Your task to perform on an android device: toggle improve location accuracy Image 0: 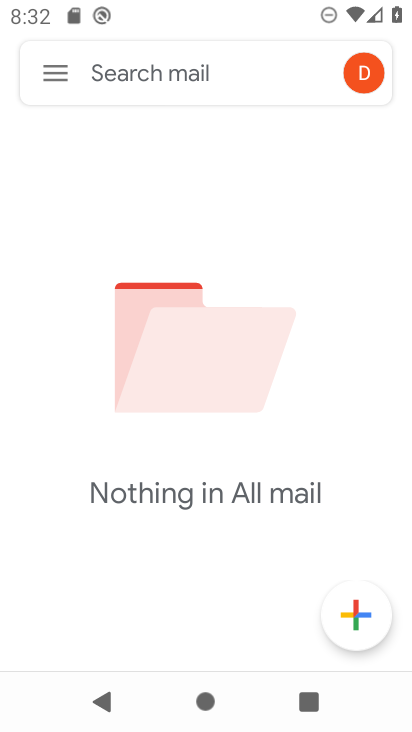
Step 0: press home button
Your task to perform on an android device: toggle improve location accuracy Image 1: 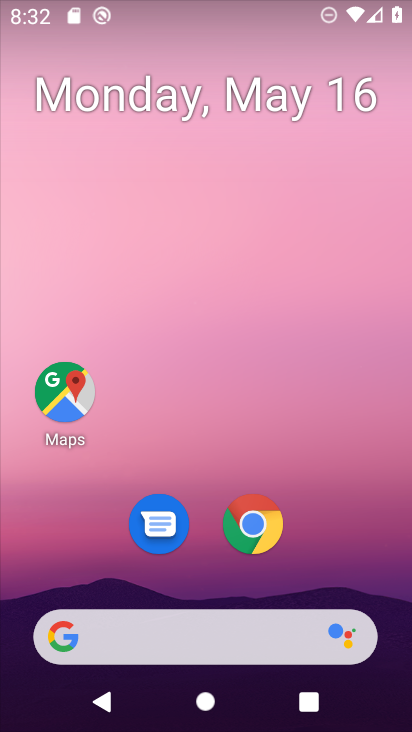
Step 1: drag from (301, 525) to (292, 58)
Your task to perform on an android device: toggle improve location accuracy Image 2: 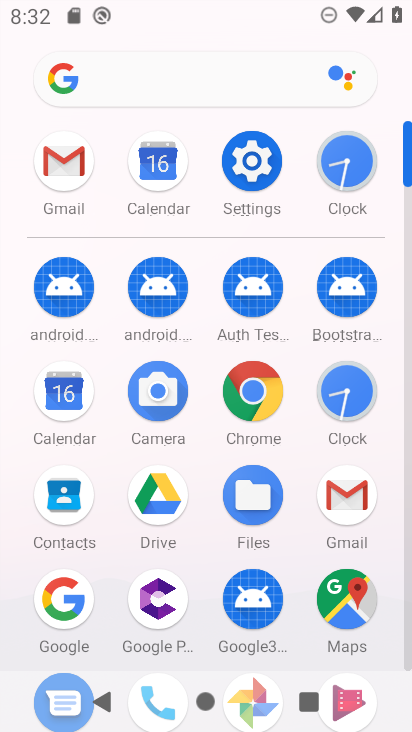
Step 2: click (255, 172)
Your task to perform on an android device: toggle improve location accuracy Image 3: 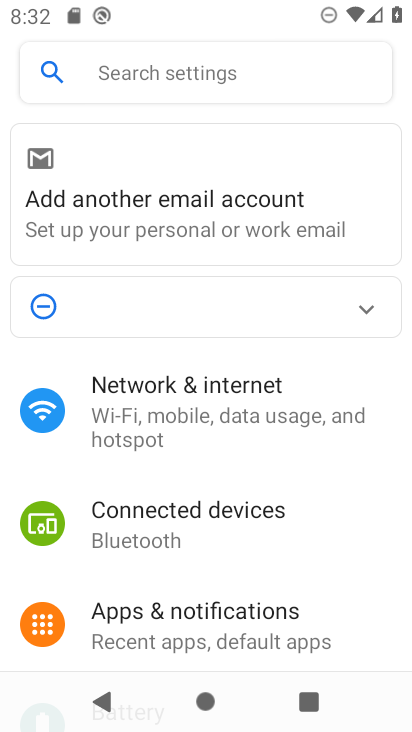
Step 3: drag from (217, 599) to (270, 192)
Your task to perform on an android device: toggle improve location accuracy Image 4: 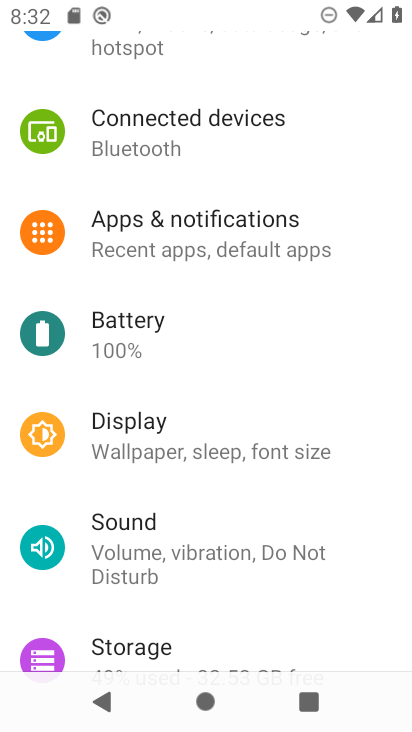
Step 4: drag from (211, 597) to (293, 102)
Your task to perform on an android device: toggle improve location accuracy Image 5: 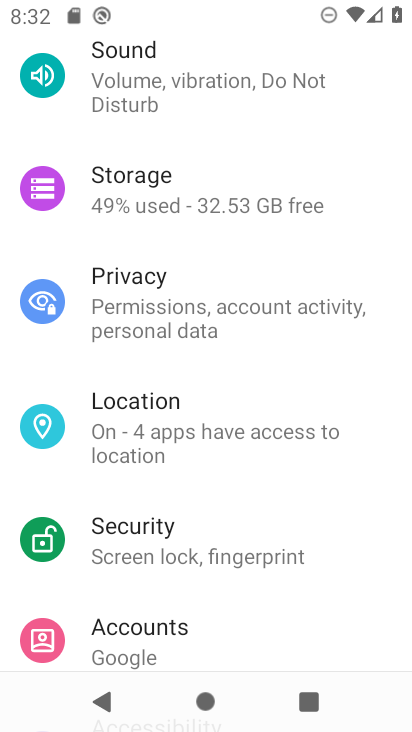
Step 5: click (193, 421)
Your task to perform on an android device: toggle improve location accuracy Image 6: 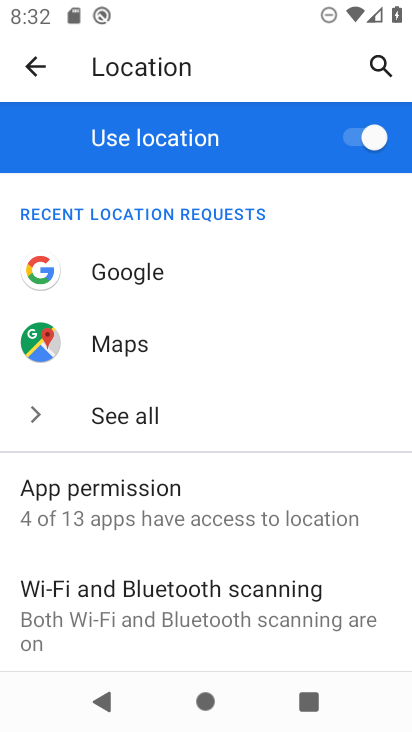
Step 6: drag from (257, 592) to (315, 182)
Your task to perform on an android device: toggle improve location accuracy Image 7: 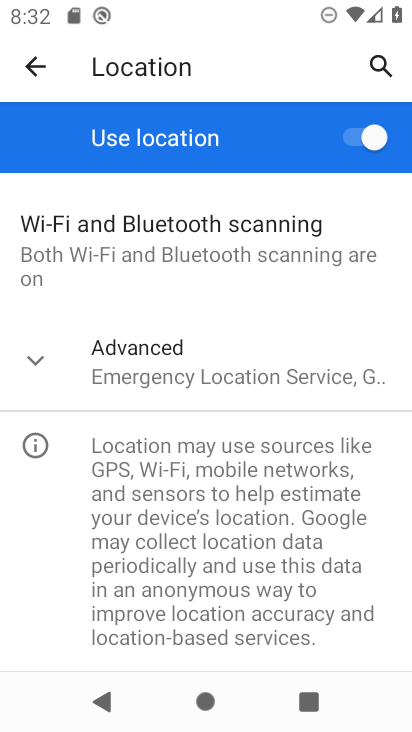
Step 7: click (32, 345)
Your task to perform on an android device: toggle improve location accuracy Image 8: 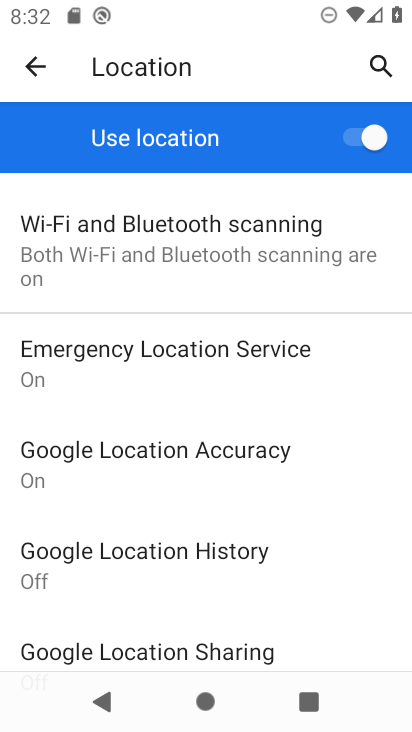
Step 8: click (222, 458)
Your task to perform on an android device: toggle improve location accuracy Image 9: 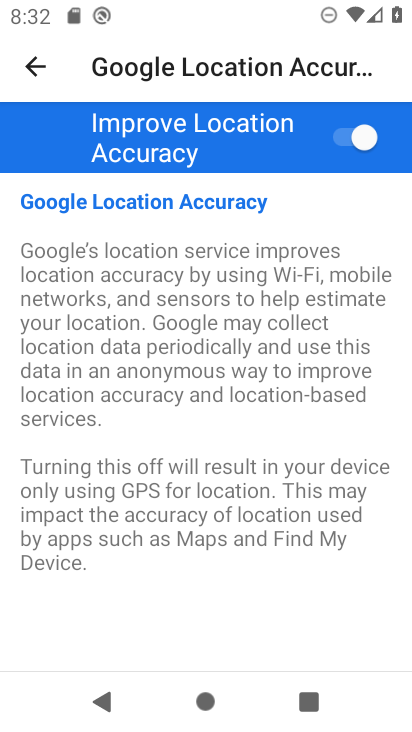
Step 9: click (365, 139)
Your task to perform on an android device: toggle improve location accuracy Image 10: 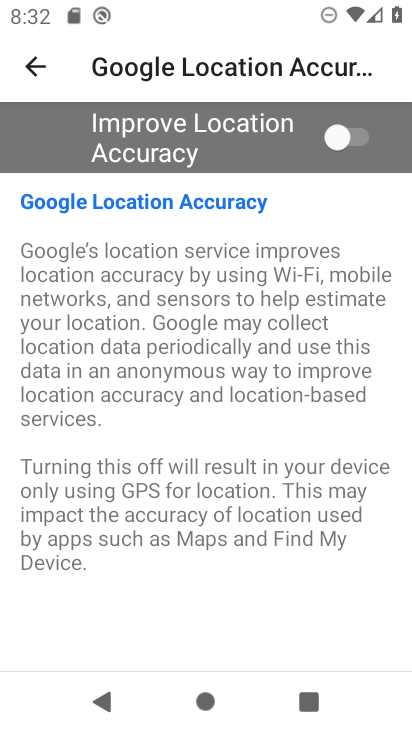
Step 10: task complete